Your task to perform on an android device: turn smart compose on in the gmail app Image 0: 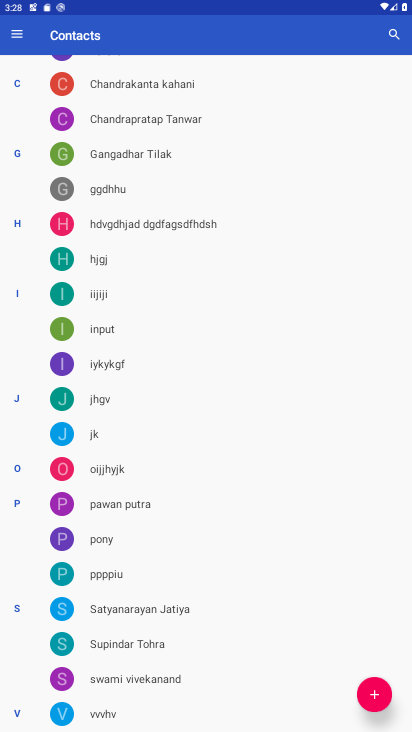
Step 0: press home button
Your task to perform on an android device: turn smart compose on in the gmail app Image 1: 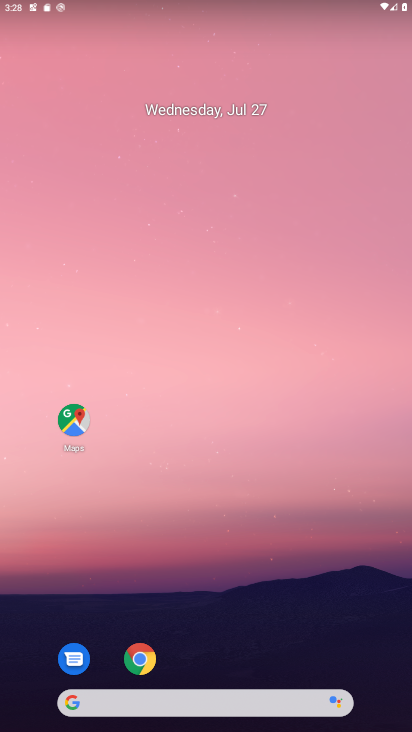
Step 1: drag from (227, 616) to (168, 0)
Your task to perform on an android device: turn smart compose on in the gmail app Image 2: 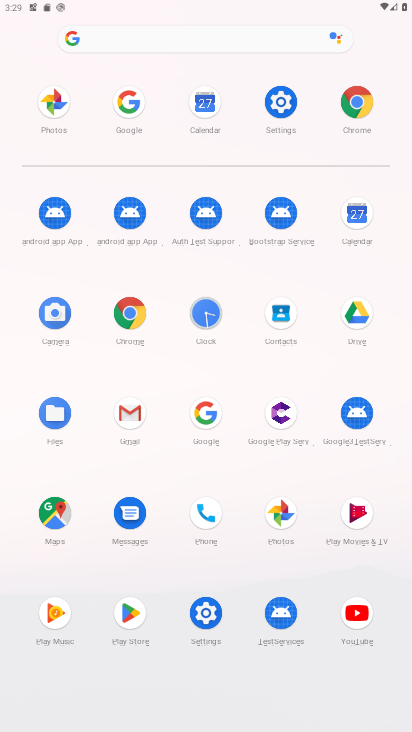
Step 2: click (133, 422)
Your task to perform on an android device: turn smart compose on in the gmail app Image 3: 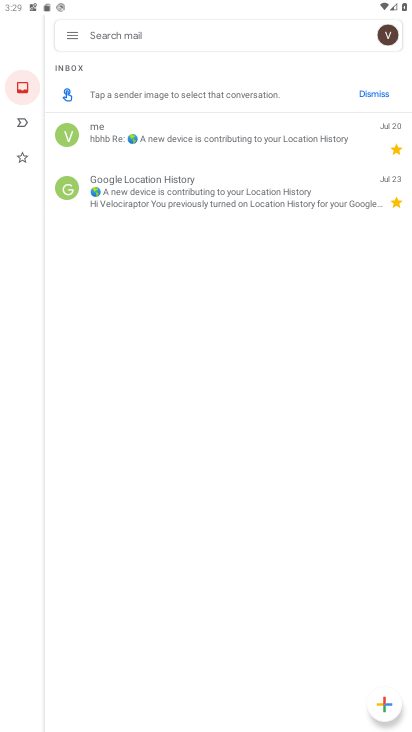
Step 3: click (61, 43)
Your task to perform on an android device: turn smart compose on in the gmail app Image 4: 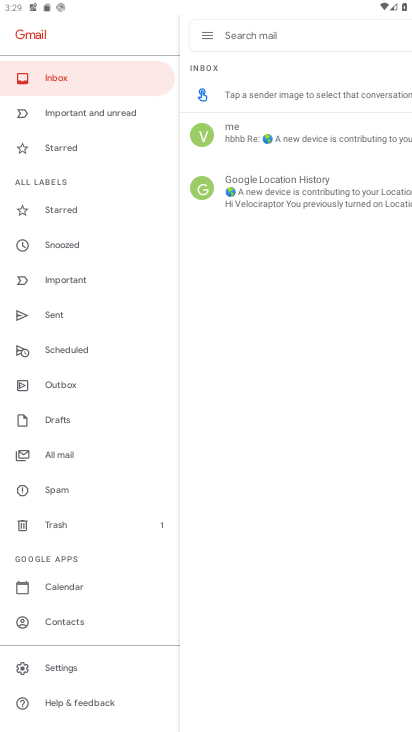
Step 4: drag from (89, 627) to (85, 177)
Your task to perform on an android device: turn smart compose on in the gmail app Image 5: 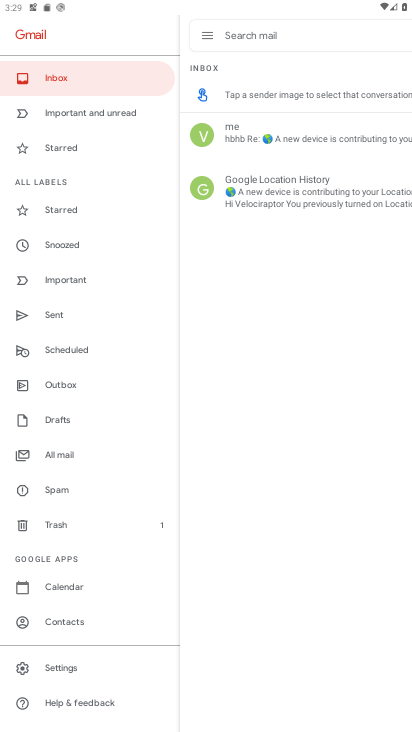
Step 5: click (63, 665)
Your task to perform on an android device: turn smart compose on in the gmail app Image 6: 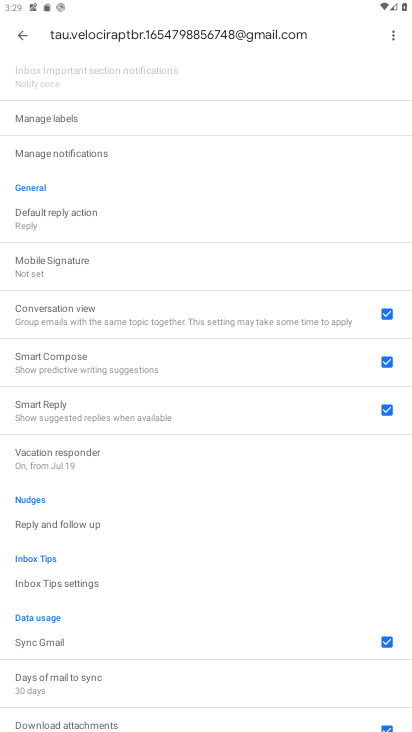
Step 6: task complete